Your task to perform on an android device: Go to wifi settings Image 0: 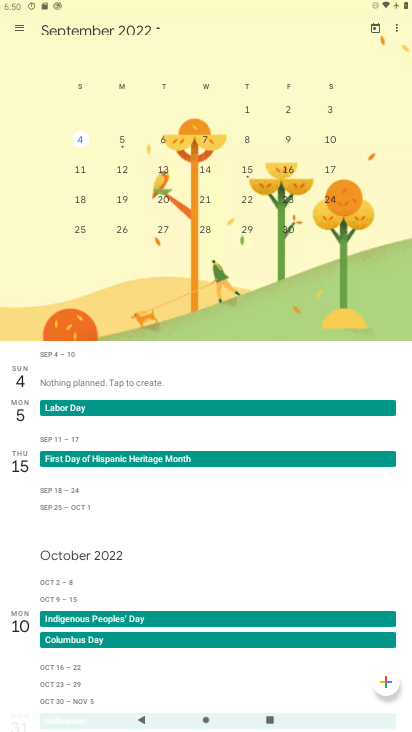
Step 0: press home button
Your task to perform on an android device: Go to wifi settings Image 1: 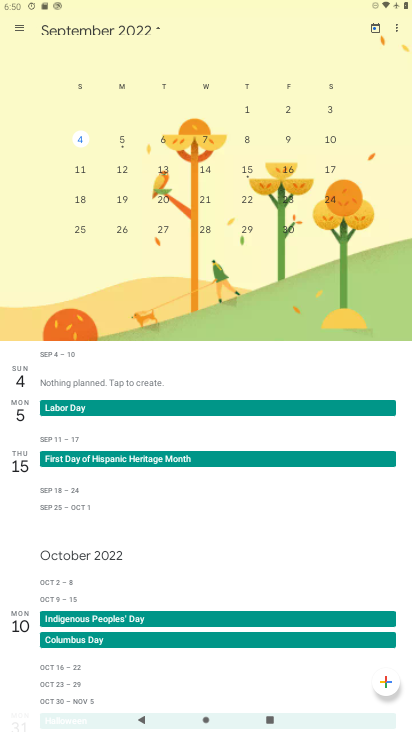
Step 1: drag from (357, 523) to (244, 9)
Your task to perform on an android device: Go to wifi settings Image 2: 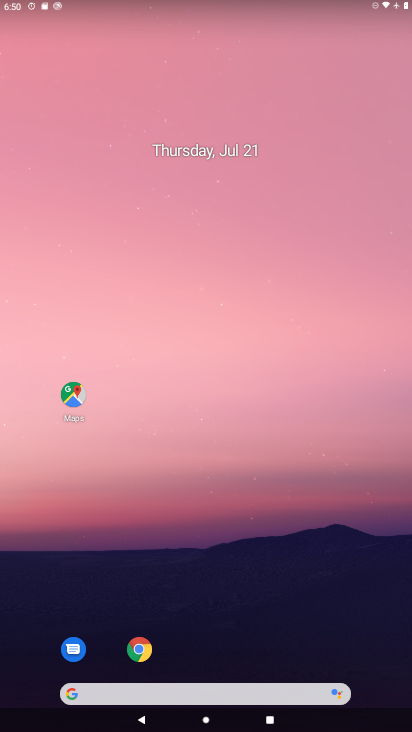
Step 2: drag from (367, 653) to (171, 45)
Your task to perform on an android device: Go to wifi settings Image 3: 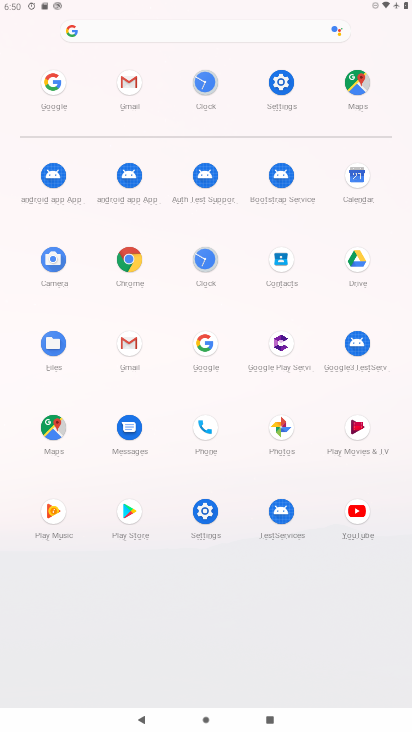
Step 3: click (274, 72)
Your task to perform on an android device: Go to wifi settings Image 4: 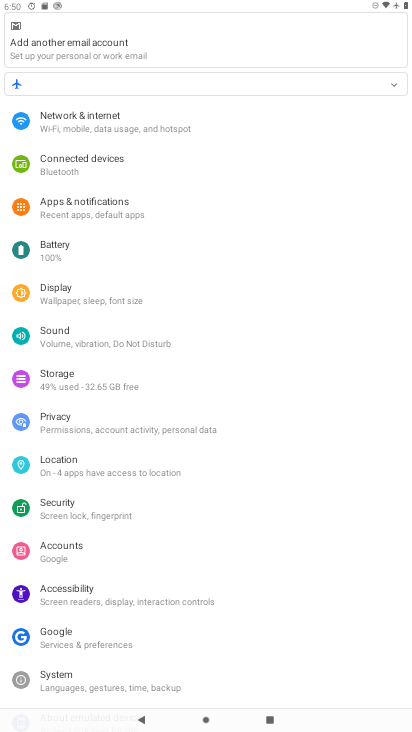
Step 4: click (87, 115)
Your task to perform on an android device: Go to wifi settings Image 5: 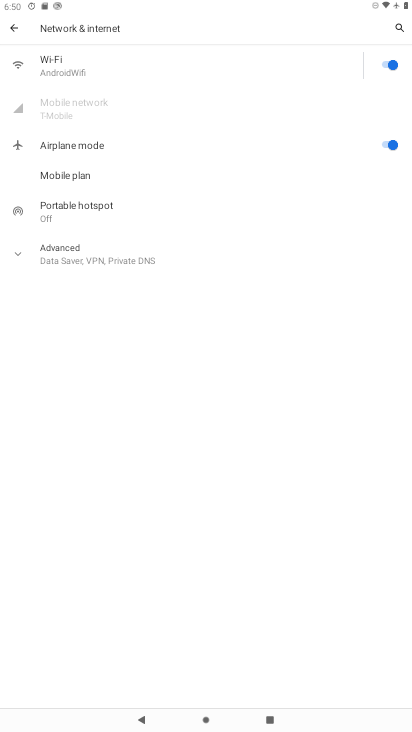
Step 5: click (104, 69)
Your task to perform on an android device: Go to wifi settings Image 6: 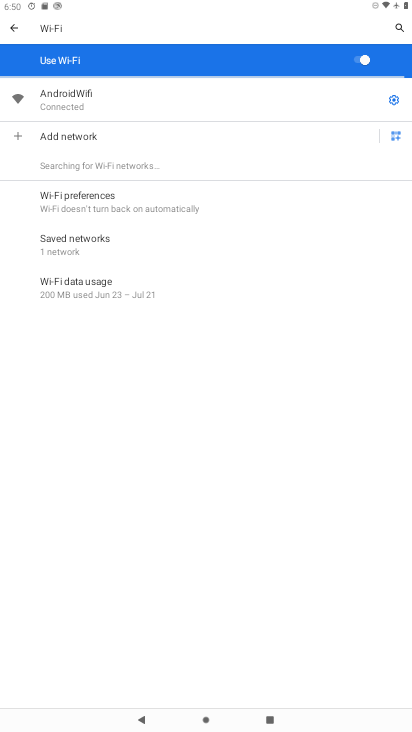
Step 6: task complete